Your task to perform on an android device: toggle wifi Image 0: 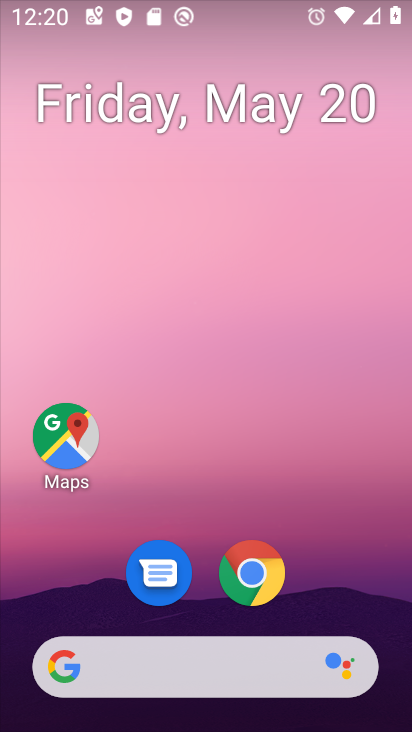
Step 0: drag from (205, 591) to (236, 34)
Your task to perform on an android device: toggle wifi Image 1: 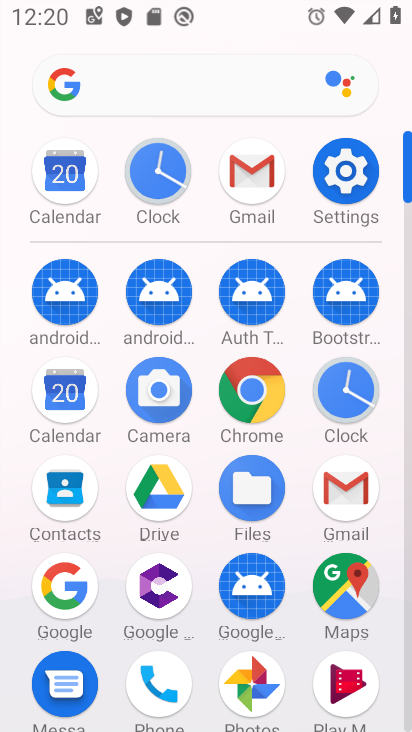
Step 1: click (329, 167)
Your task to perform on an android device: toggle wifi Image 2: 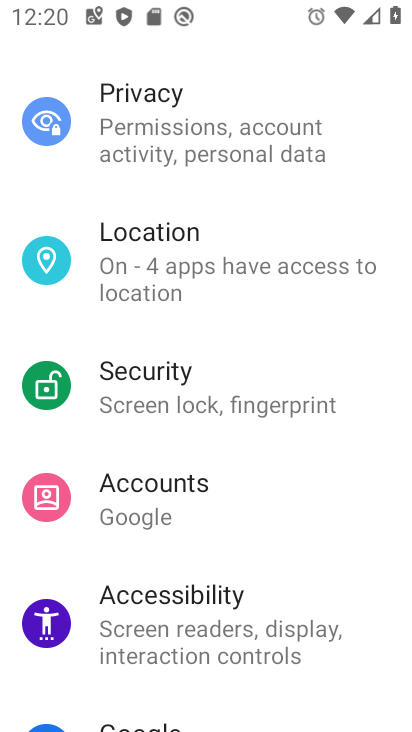
Step 2: drag from (219, 216) to (273, 612)
Your task to perform on an android device: toggle wifi Image 3: 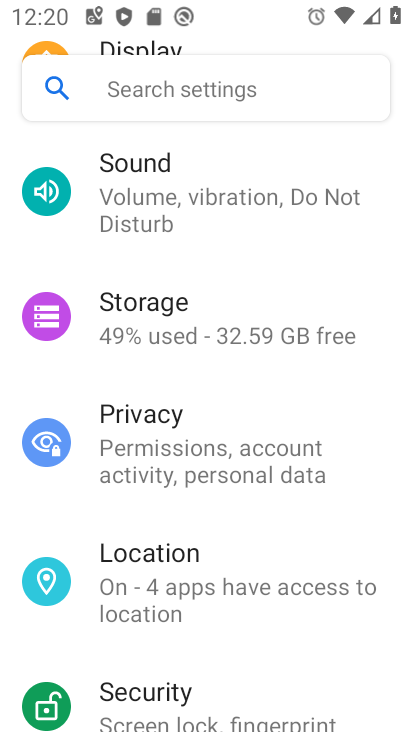
Step 3: drag from (178, 144) to (305, 626)
Your task to perform on an android device: toggle wifi Image 4: 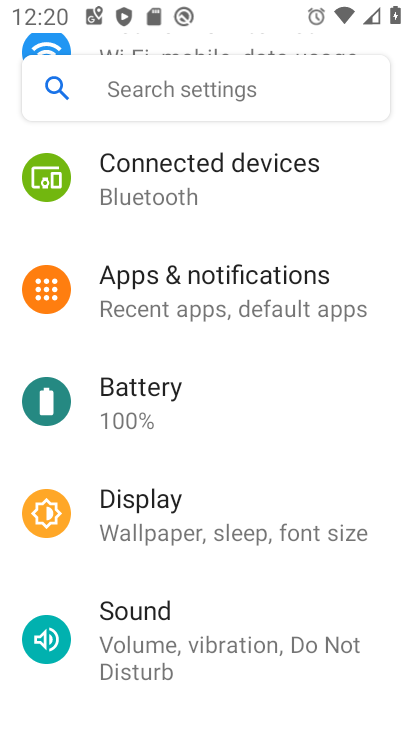
Step 4: drag from (193, 218) to (282, 610)
Your task to perform on an android device: toggle wifi Image 5: 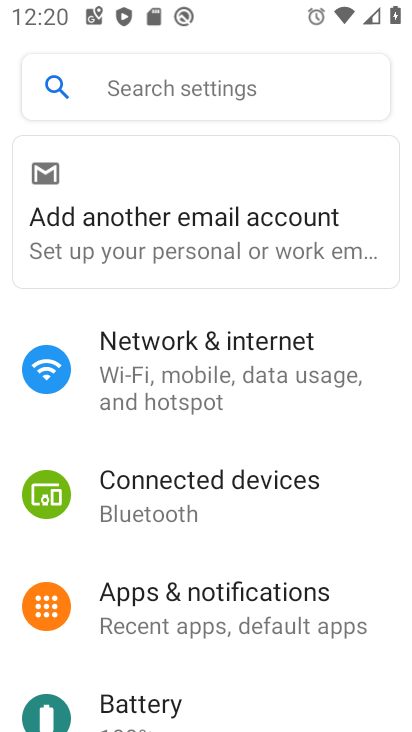
Step 5: click (197, 364)
Your task to perform on an android device: toggle wifi Image 6: 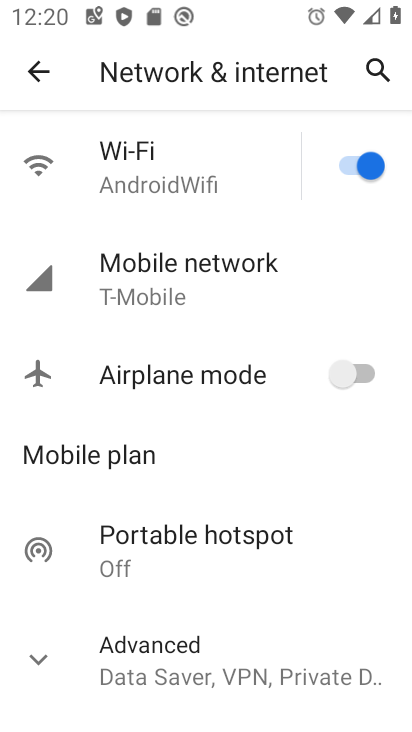
Step 6: click (368, 161)
Your task to perform on an android device: toggle wifi Image 7: 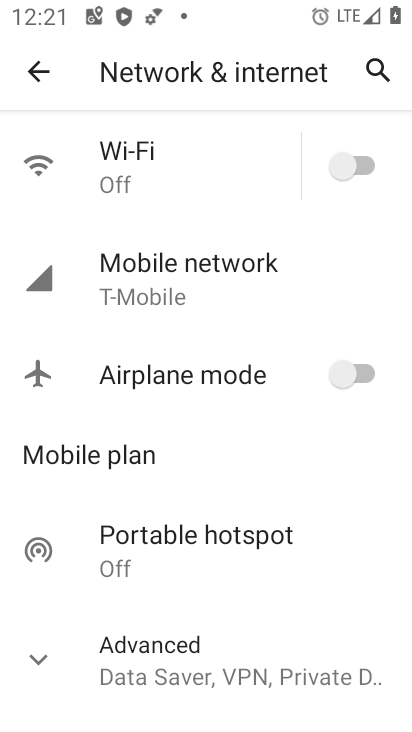
Step 7: task complete